Your task to perform on an android device: Open Google Maps Image 0: 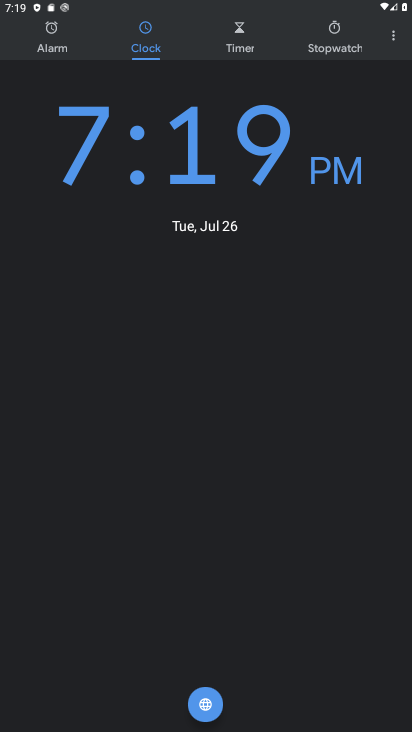
Step 0: press home button
Your task to perform on an android device: Open Google Maps Image 1: 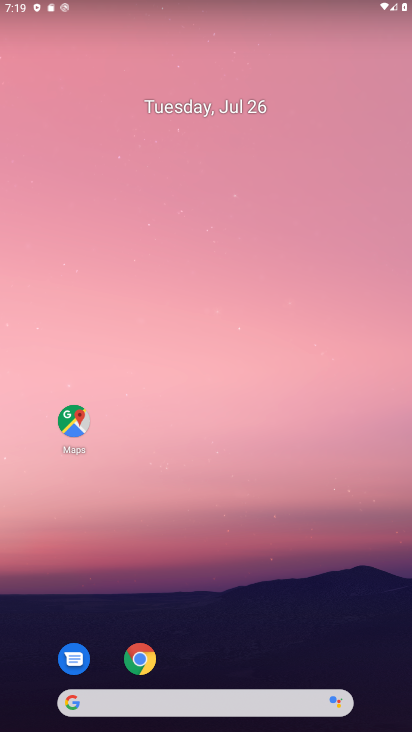
Step 1: drag from (196, 670) to (230, 131)
Your task to perform on an android device: Open Google Maps Image 2: 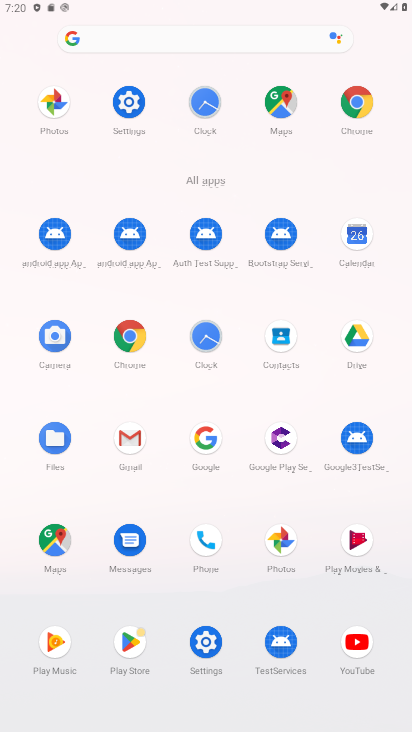
Step 2: click (43, 548)
Your task to perform on an android device: Open Google Maps Image 3: 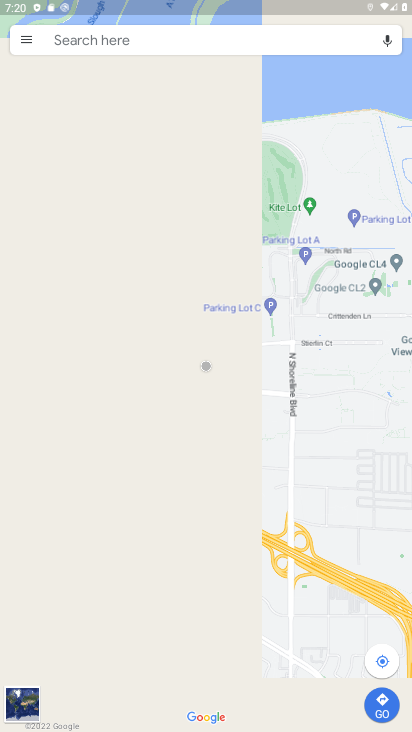
Step 3: task complete